Your task to perform on an android device: Go to Amazon Image 0: 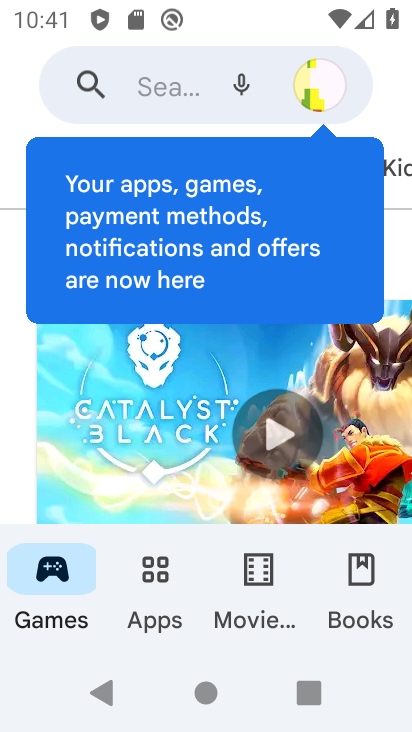
Step 0: press home button
Your task to perform on an android device: Go to Amazon Image 1: 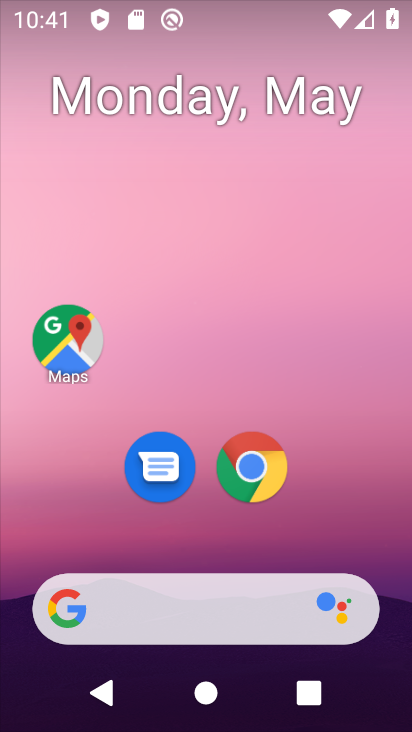
Step 1: click (255, 484)
Your task to perform on an android device: Go to Amazon Image 2: 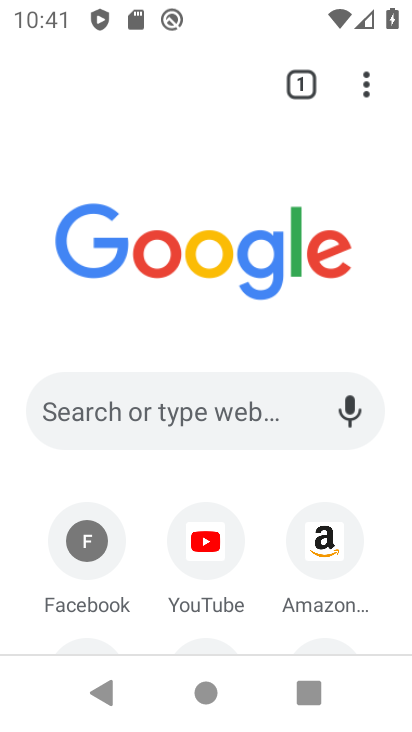
Step 2: click (315, 563)
Your task to perform on an android device: Go to Amazon Image 3: 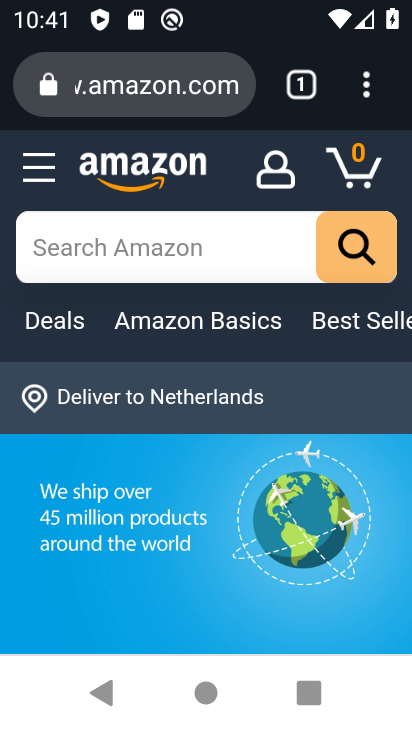
Step 3: task complete